Your task to perform on an android device: Go to settings Image 0: 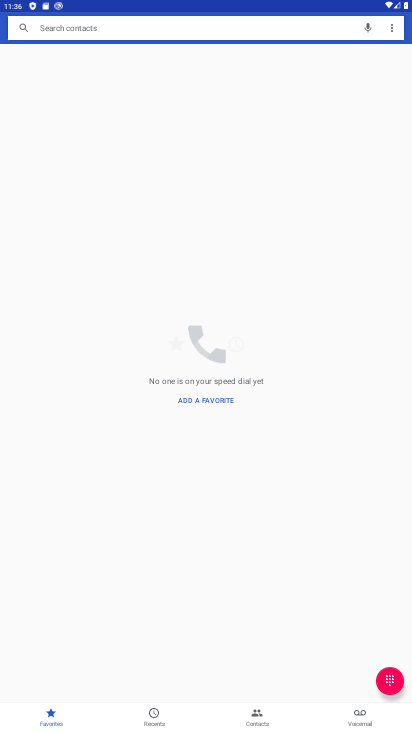
Step 0: press home button
Your task to perform on an android device: Go to settings Image 1: 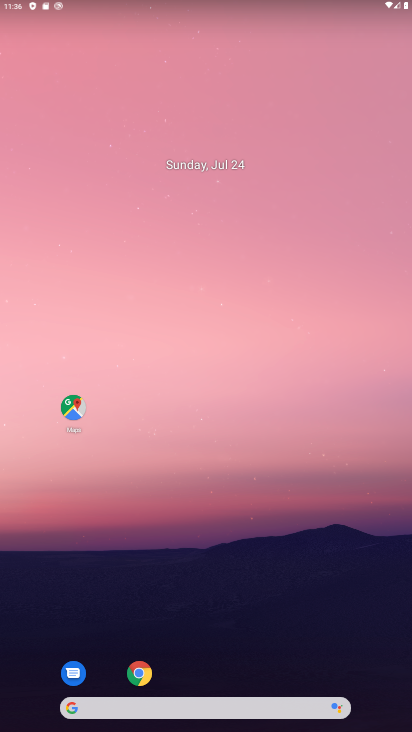
Step 1: drag from (187, 707) to (226, 187)
Your task to perform on an android device: Go to settings Image 2: 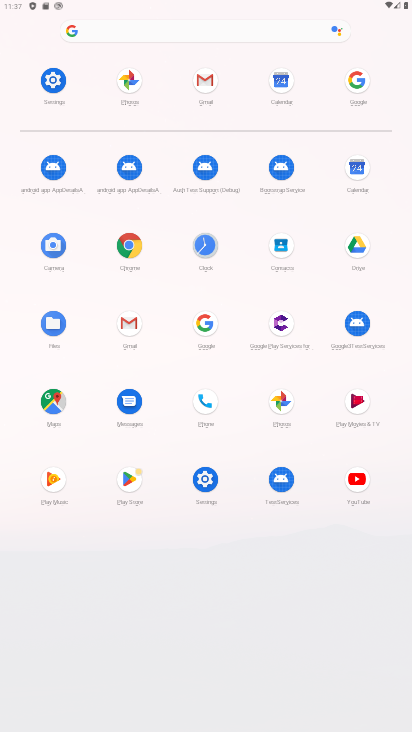
Step 2: click (205, 479)
Your task to perform on an android device: Go to settings Image 3: 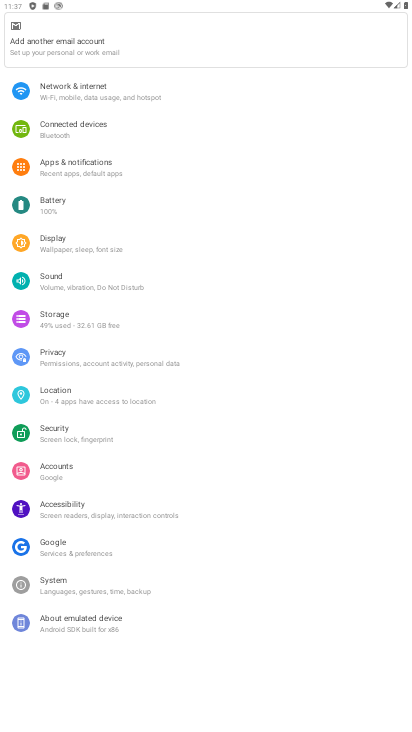
Step 3: task complete